Your task to perform on an android device: allow notifications from all sites in the chrome app Image 0: 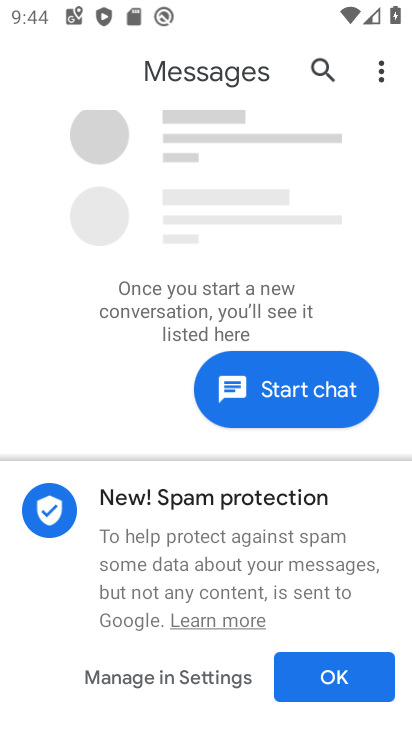
Step 0: press home button
Your task to perform on an android device: allow notifications from all sites in the chrome app Image 1: 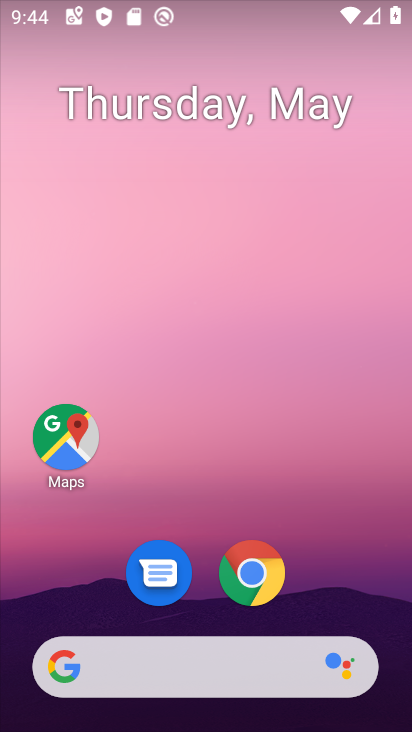
Step 1: click (238, 583)
Your task to perform on an android device: allow notifications from all sites in the chrome app Image 2: 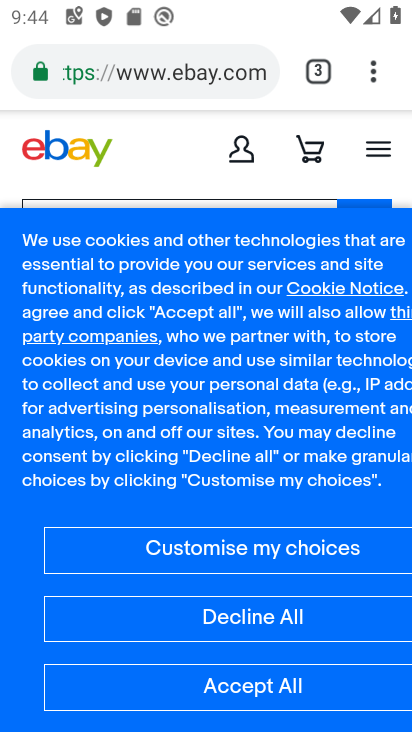
Step 2: drag from (369, 71) to (137, 578)
Your task to perform on an android device: allow notifications from all sites in the chrome app Image 3: 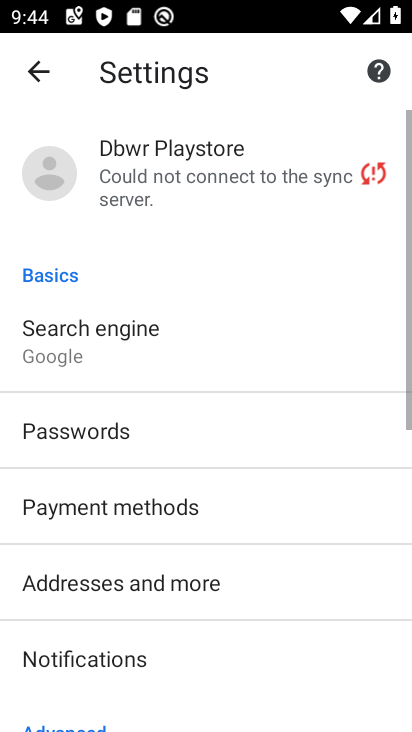
Step 3: drag from (231, 565) to (221, 392)
Your task to perform on an android device: allow notifications from all sites in the chrome app Image 4: 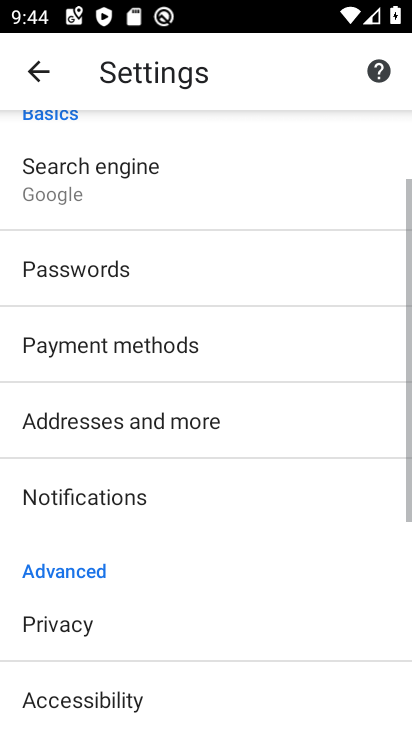
Step 4: drag from (220, 617) to (205, 387)
Your task to perform on an android device: allow notifications from all sites in the chrome app Image 5: 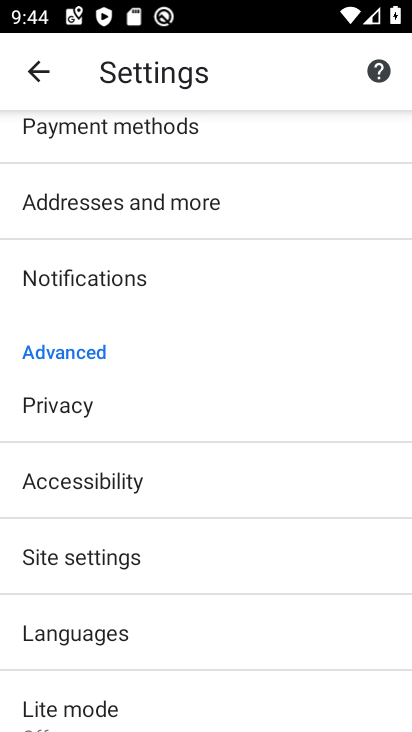
Step 5: drag from (144, 637) to (163, 537)
Your task to perform on an android device: allow notifications from all sites in the chrome app Image 6: 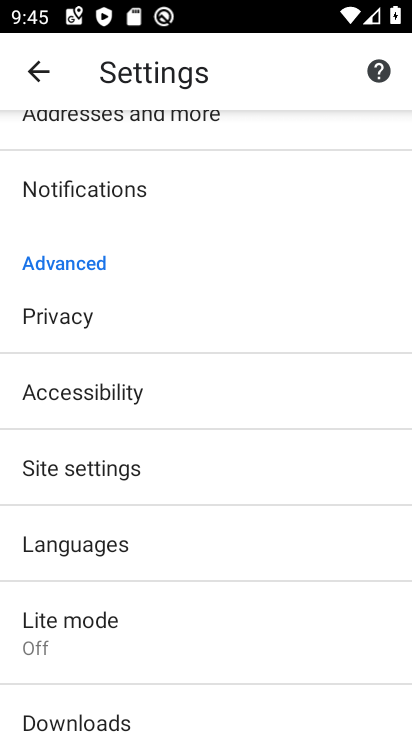
Step 6: click (132, 472)
Your task to perform on an android device: allow notifications from all sites in the chrome app Image 7: 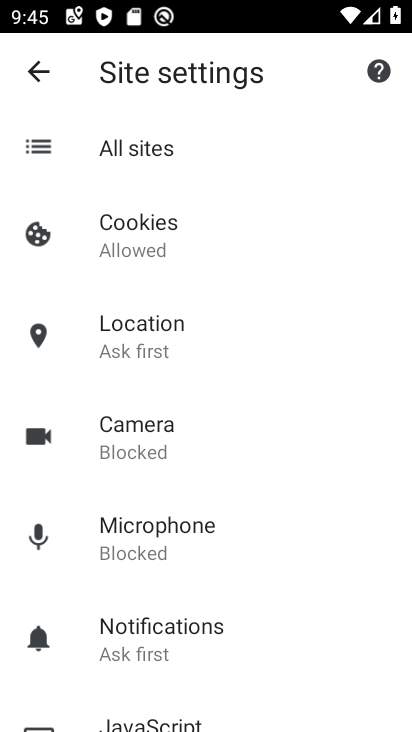
Step 7: click (146, 142)
Your task to perform on an android device: allow notifications from all sites in the chrome app Image 8: 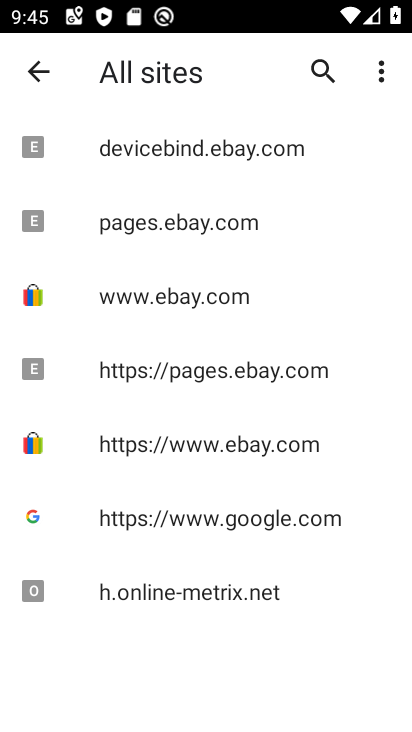
Step 8: click (233, 531)
Your task to perform on an android device: allow notifications from all sites in the chrome app Image 9: 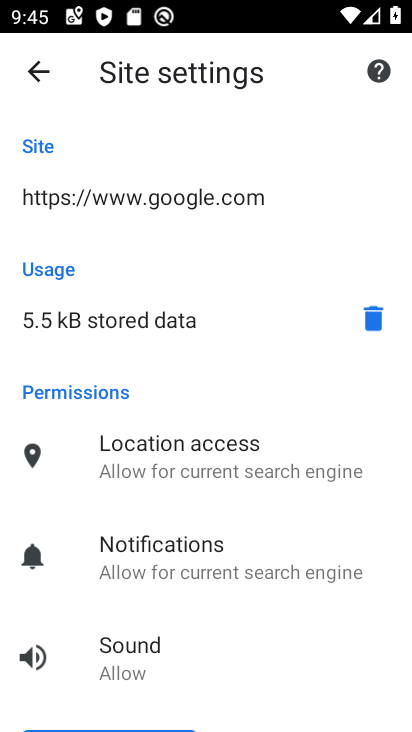
Step 9: drag from (254, 664) to (267, 572)
Your task to perform on an android device: allow notifications from all sites in the chrome app Image 10: 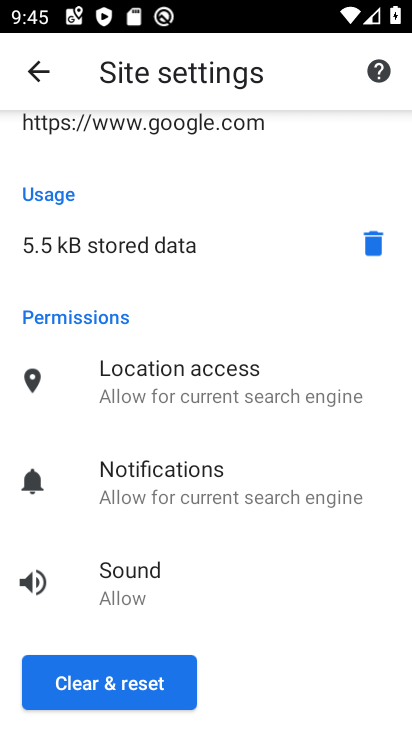
Step 10: drag from (227, 627) to (229, 537)
Your task to perform on an android device: allow notifications from all sites in the chrome app Image 11: 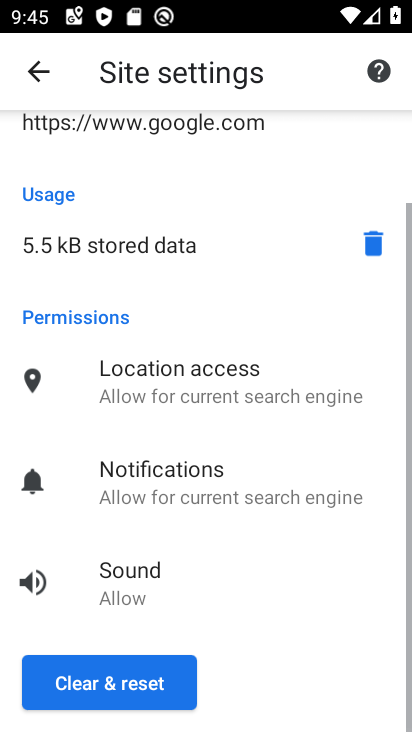
Step 11: click (229, 484)
Your task to perform on an android device: allow notifications from all sites in the chrome app Image 12: 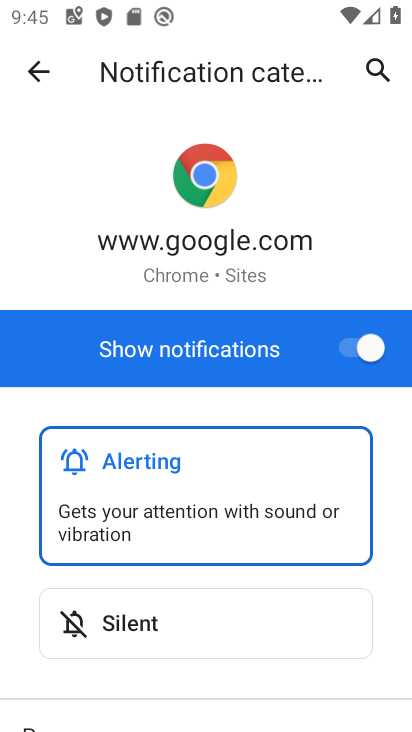
Step 12: task complete